Your task to perform on an android device: Go to network settings Image 0: 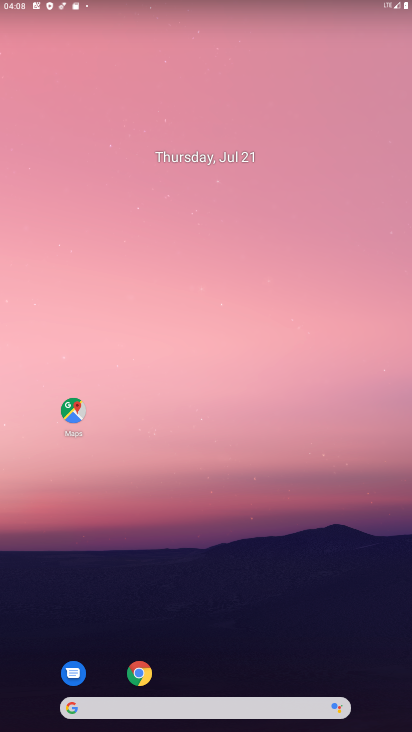
Step 0: drag from (337, 580) to (312, 57)
Your task to perform on an android device: Go to network settings Image 1: 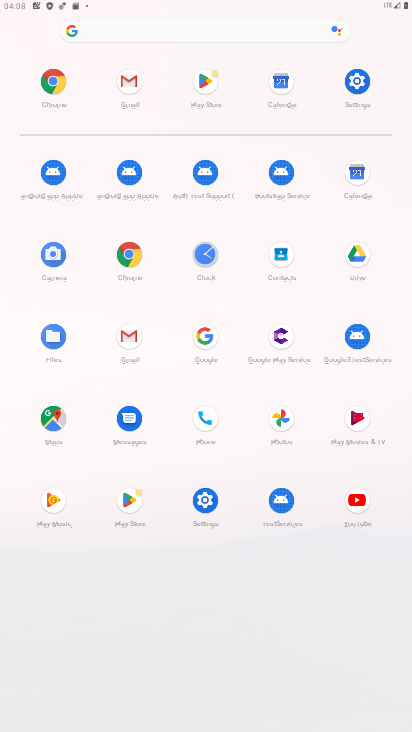
Step 1: click (348, 80)
Your task to perform on an android device: Go to network settings Image 2: 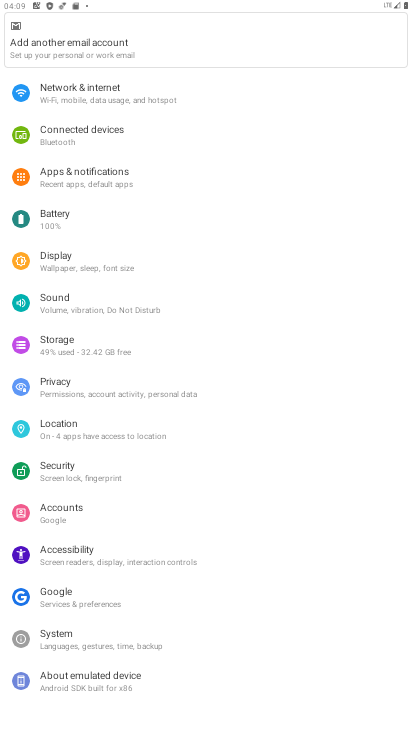
Step 2: click (116, 86)
Your task to perform on an android device: Go to network settings Image 3: 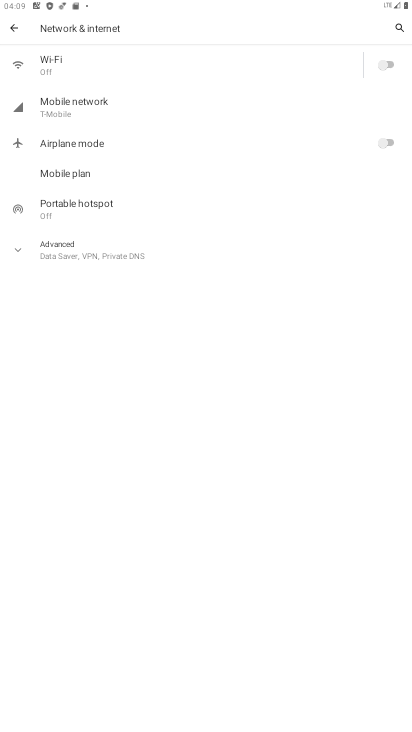
Step 3: task complete